Your task to perform on an android device: turn on notifications settings in the gmail app Image 0: 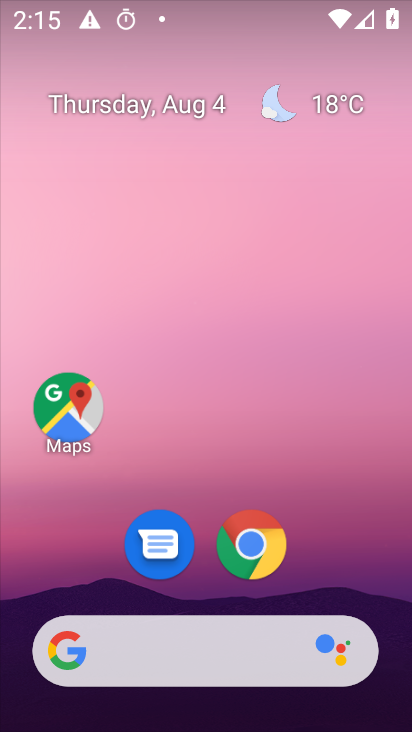
Step 0: drag from (357, 549) to (315, 164)
Your task to perform on an android device: turn on notifications settings in the gmail app Image 1: 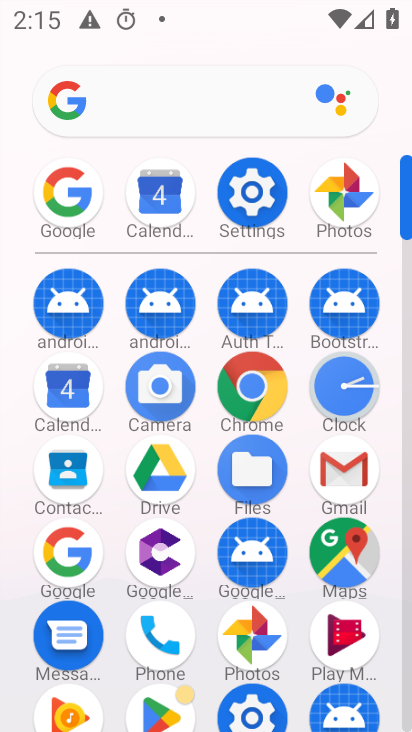
Step 1: click (363, 476)
Your task to perform on an android device: turn on notifications settings in the gmail app Image 2: 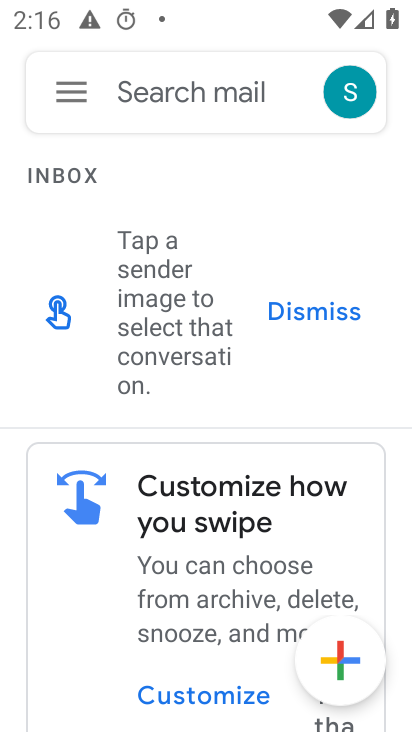
Step 2: press home button
Your task to perform on an android device: turn on notifications settings in the gmail app Image 3: 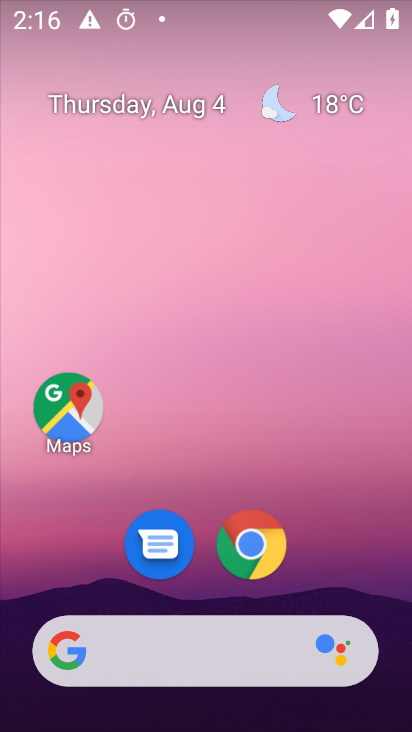
Step 3: drag from (354, 714) to (340, 106)
Your task to perform on an android device: turn on notifications settings in the gmail app Image 4: 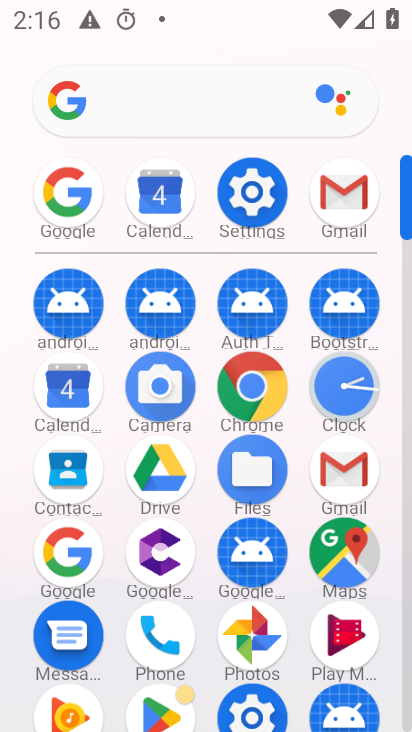
Step 4: click (335, 466)
Your task to perform on an android device: turn on notifications settings in the gmail app Image 5: 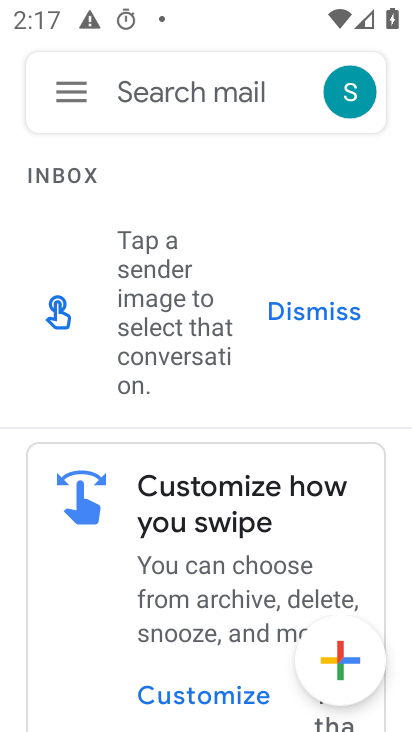
Step 5: click (58, 83)
Your task to perform on an android device: turn on notifications settings in the gmail app Image 6: 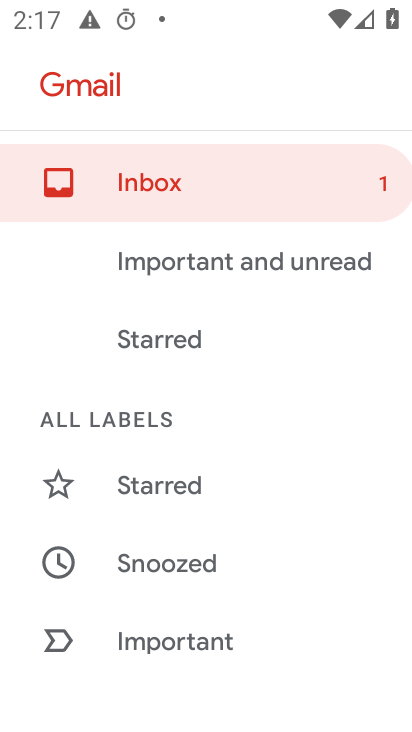
Step 6: drag from (270, 674) to (248, 285)
Your task to perform on an android device: turn on notifications settings in the gmail app Image 7: 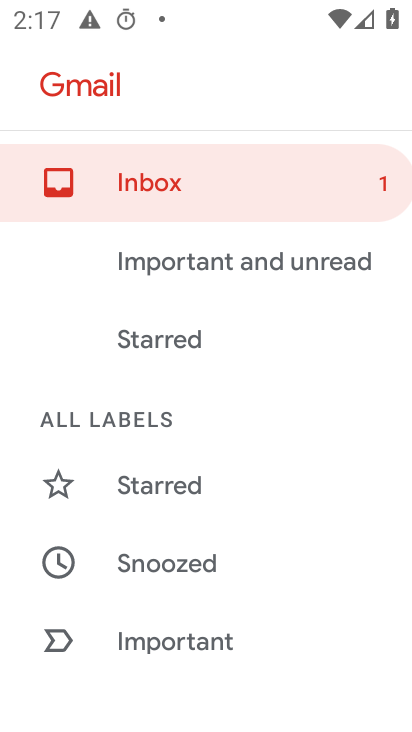
Step 7: drag from (306, 649) to (312, 338)
Your task to perform on an android device: turn on notifications settings in the gmail app Image 8: 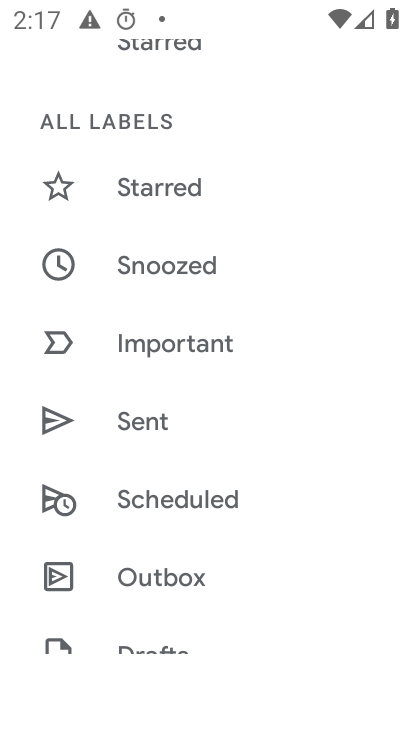
Step 8: drag from (276, 627) to (310, 315)
Your task to perform on an android device: turn on notifications settings in the gmail app Image 9: 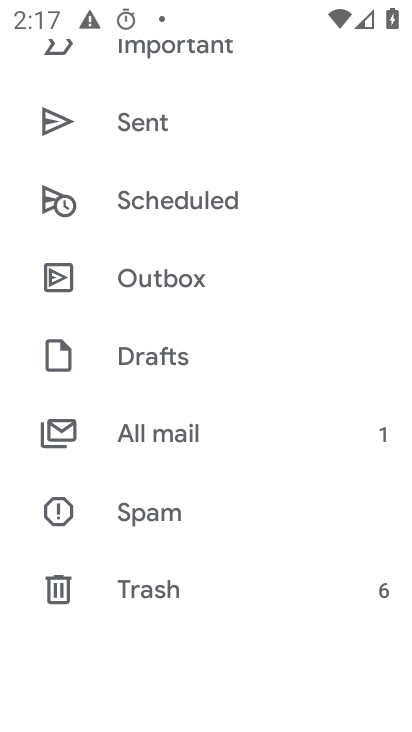
Step 9: drag from (281, 480) to (277, 241)
Your task to perform on an android device: turn on notifications settings in the gmail app Image 10: 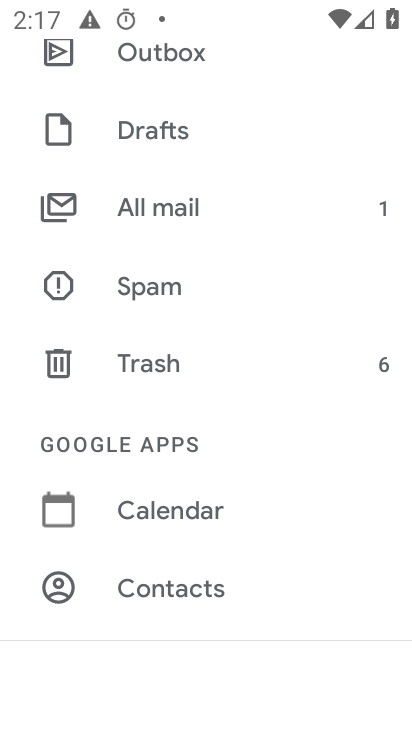
Step 10: drag from (267, 617) to (283, 337)
Your task to perform on an android device: turn on notifications settings in the gmail app Image 11: 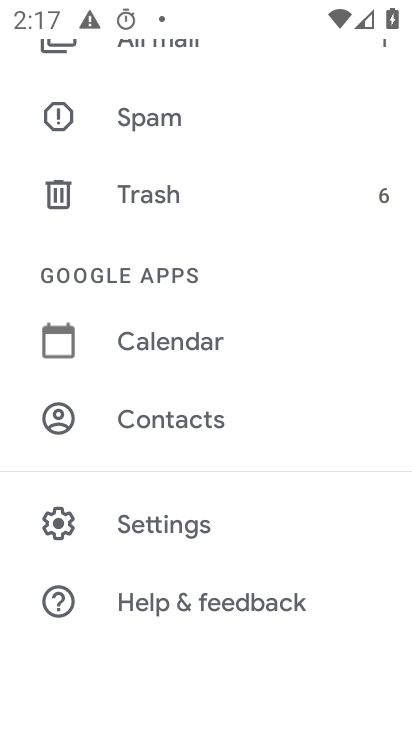
Step 11: click (167, 522)
Your task to perform on an android device: turn on notifications settings in the gmail app Image 12: 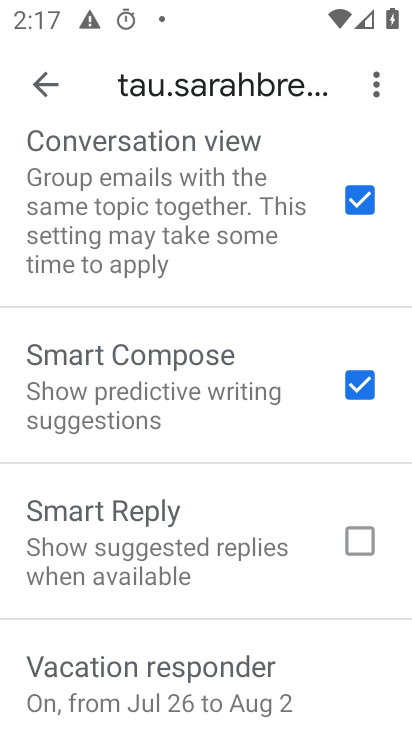
Step 12: drag from (174, 146) to (212, 580)
Your task to perform on an android device: turn on notifications settings in the gmail app Image 13: 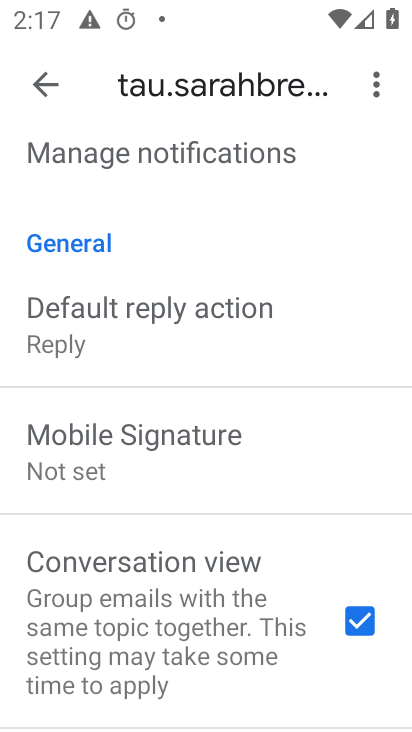
Step 13: drag from (196, 276) to (217, 583)
Your task to perform on an android device: turn on notifications settings in the gmail app Image 14: 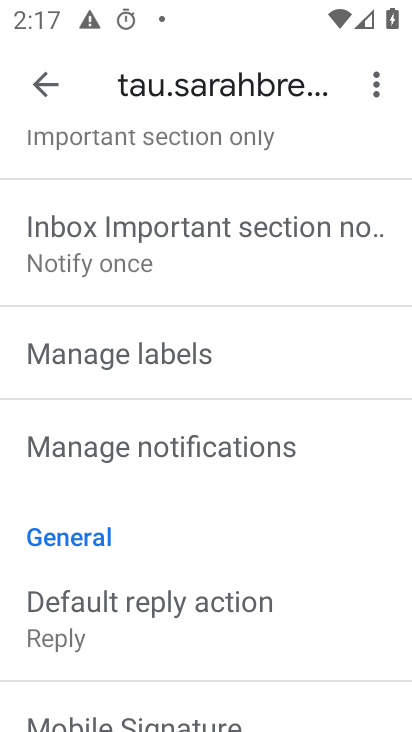
Step 14: drag from (196, 243) to (229, 630)
Your task to perform on an android device: turn on notifications settings in the gmail app Image 15: 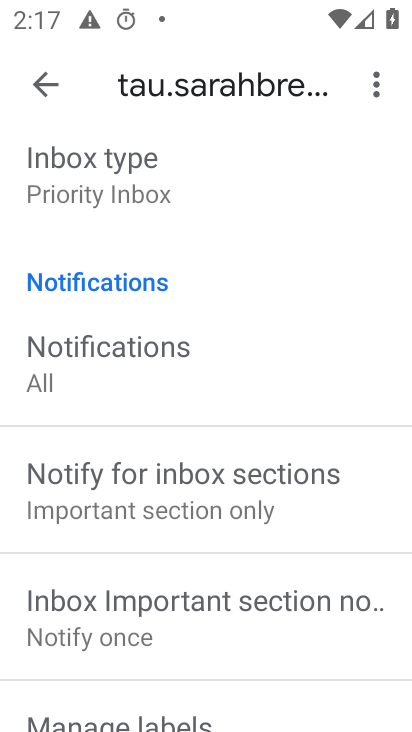
Step 15: click (119, 351)
Your task to perform on an android device: turn on notifications settings in the gmail app Image 16: 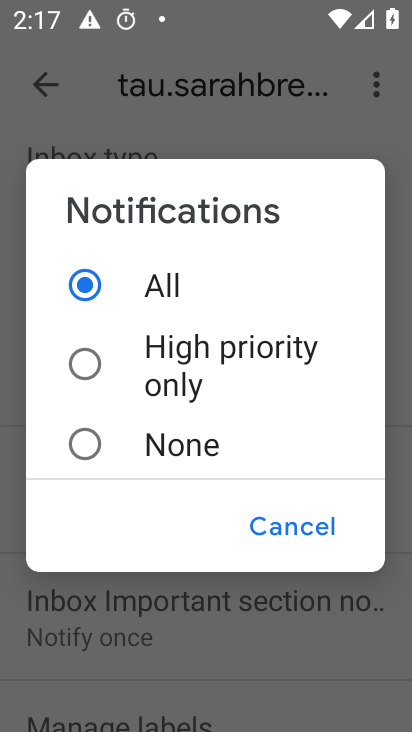
Step 16: task complete